Your task to perform on an android device: choose inbox layout in the gmail app Image 0: 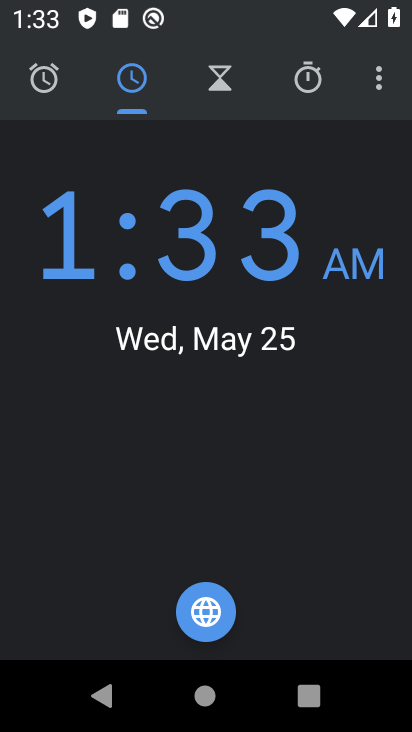
Step 0: press home button
Your task to perform on an android device: choose inbox layout in the gmail app Image 1: 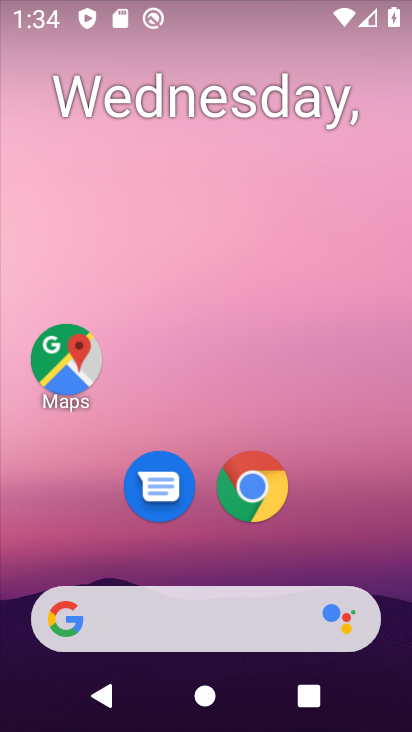
Step 1: click (75, 372)
Your task to perform on an android device: choose inbox layout in the gmail app Image 2: 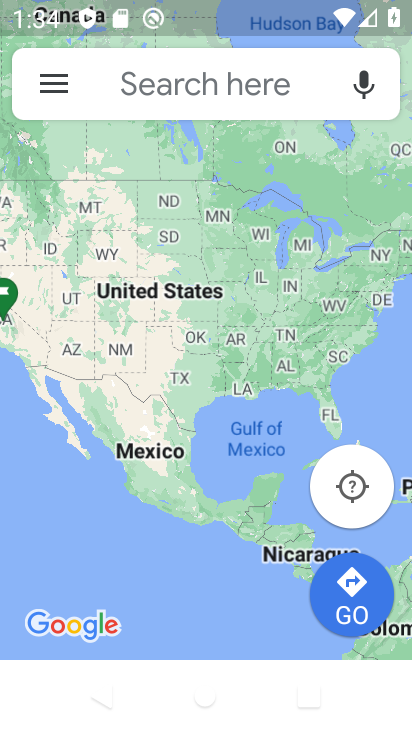
Step 2: press home button
Your task to perform on an android device: choose inbox layout in the gmail app Image 3: 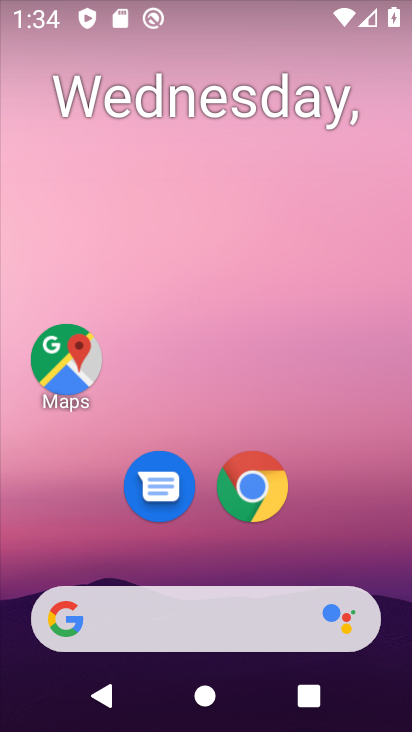
Step 3: drag from (206, 560) to (151, 112)
Your task to perform on an android device: choose inbox layout in the gmail app Image 4: 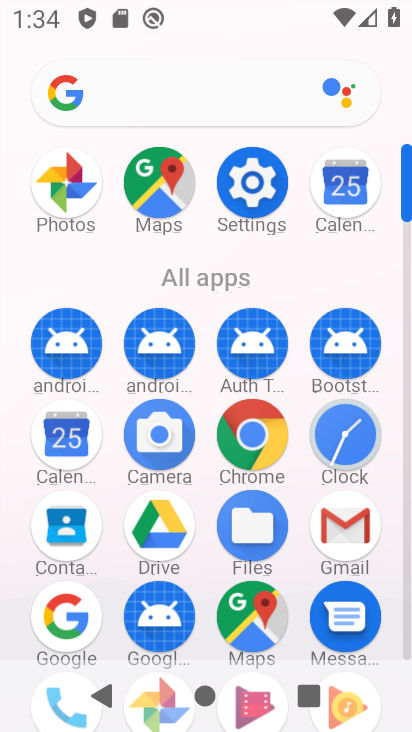
Step 4: click (345, 524)
Your task to perform on an android device: choose inbox layout in the gmail app Image 5: 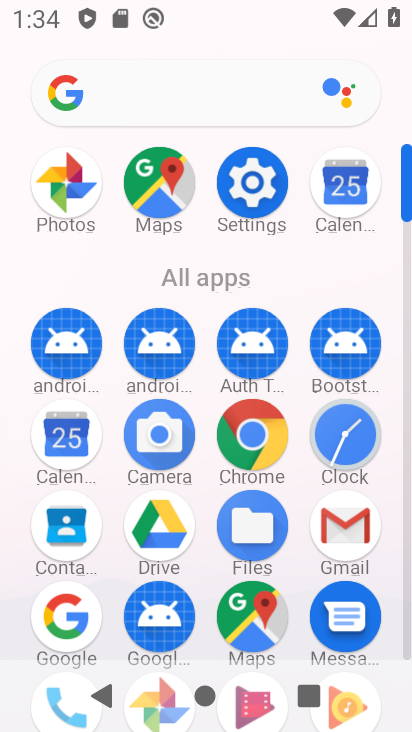
Step 5: click (345, 524)
Your task to perform on an android device: choose inbox layout in the gmail app Image 6: 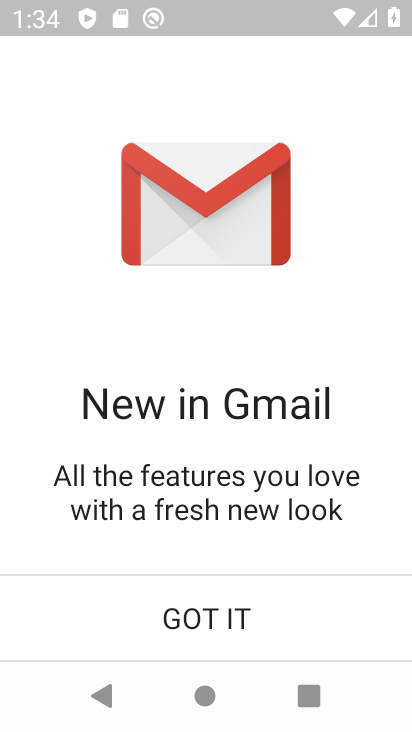
Step 6: click (229, 601)
Your task to perform on an android device: choose inbox layout in the gmail app Image 7: 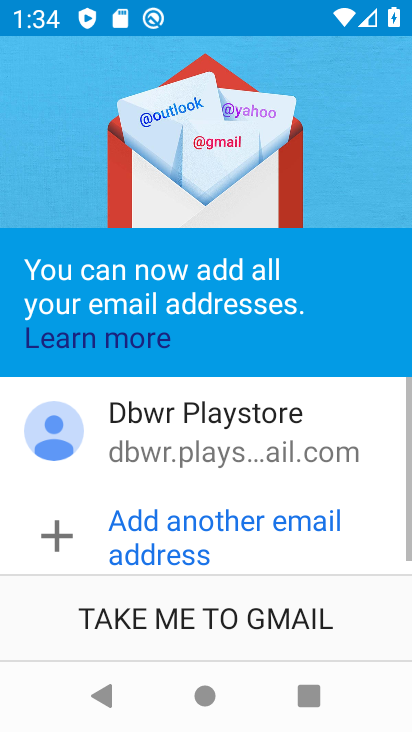
Step 7: click (229, 601)
Your task to perform on an android device: choose inbox layout in the gmail app Image 8: 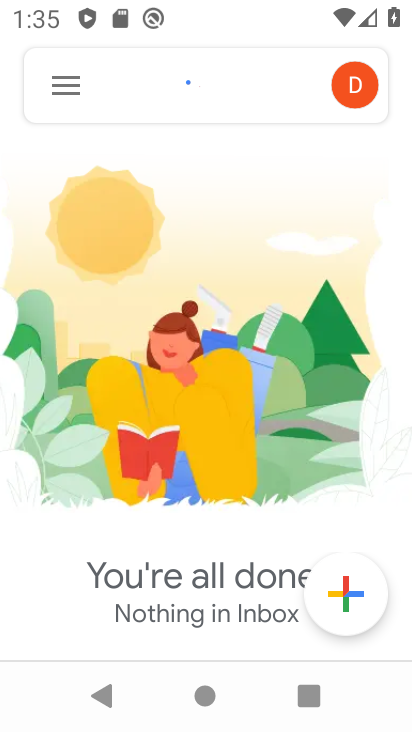
Step 8: click (72, 81)
Your task to perform on an android device: choose inbox layout in the gmail app Image 9: 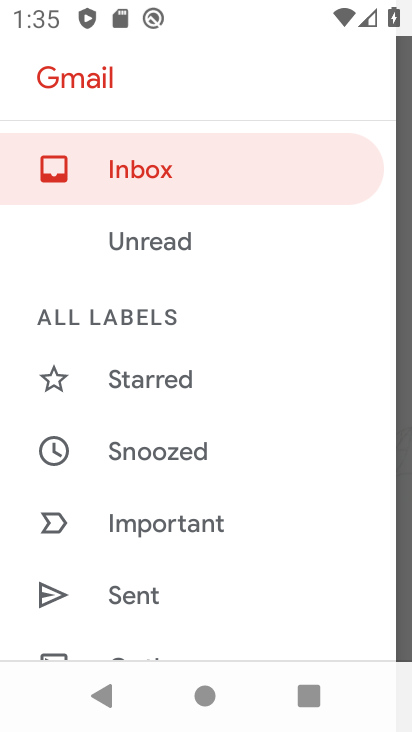
Step 9: drag from (273, 601) to (281, 230)
Your task to perform on an android device: choose inbox layout in the gmail app Image 10: 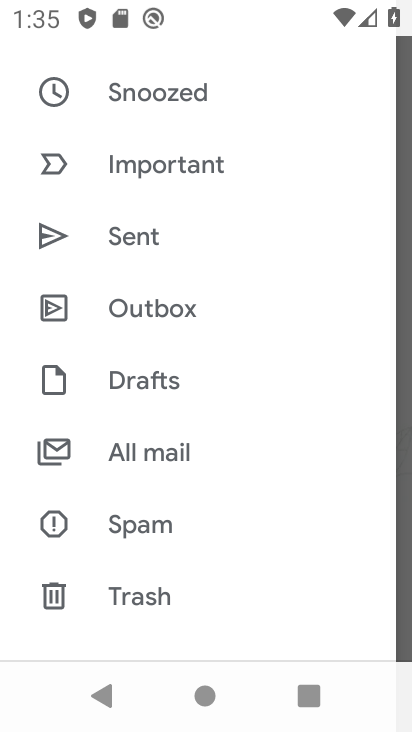
Step 10: drag from (226, 570) to (207, 248)
Your task to perform on an android device: choose inbox layout in the gmail app Image 11: 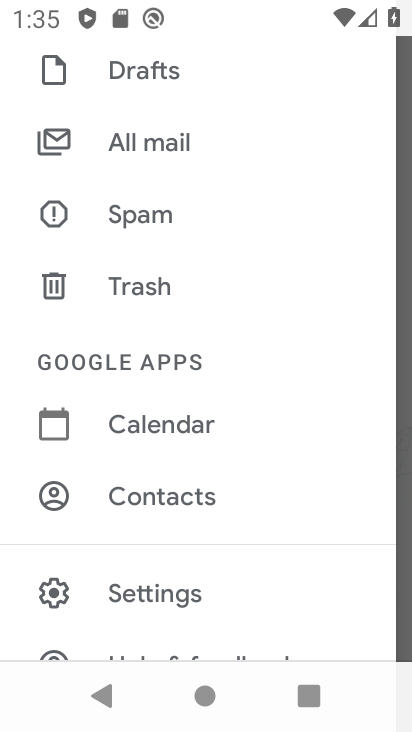
Step 11: click (188, 603)
Your task to perform on an android device: choose inbox layout in the gmail app Image 12: 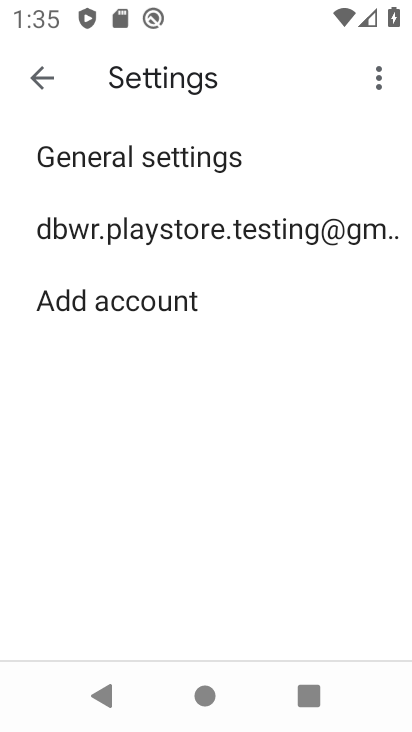
Step 12: click (153, 223)
Your task to perform on an android device: choose inbox layout in the gmail app Image 13: 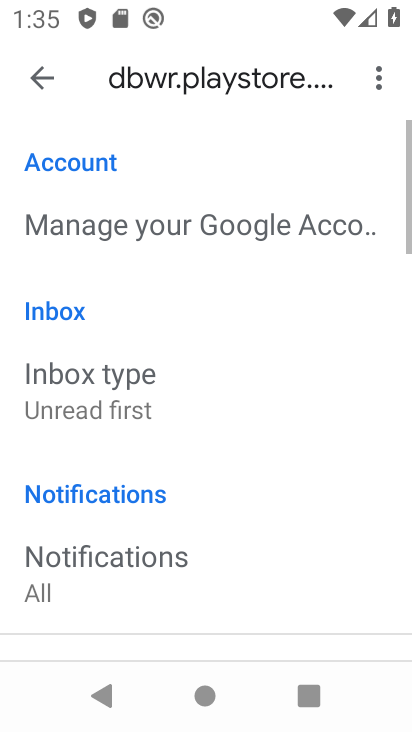
Step 13: click (103, 409)
Your task to perform on an android device: choose inbox layout in the gmail app Image 14: 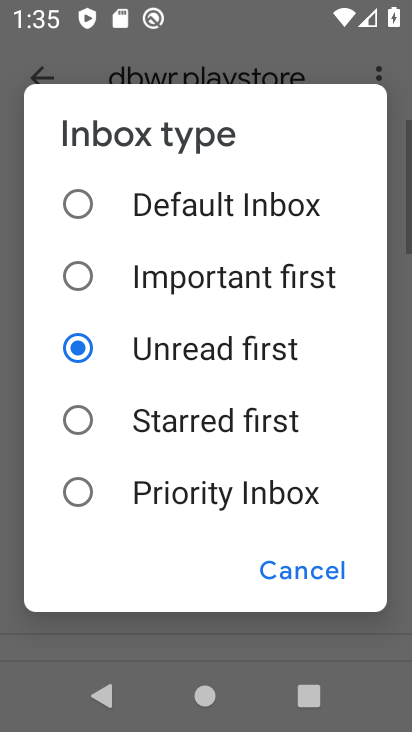
Step 14: click (213, 180)
Your task to perform on an android device: choose inbox layout in the gmail app Image 15: 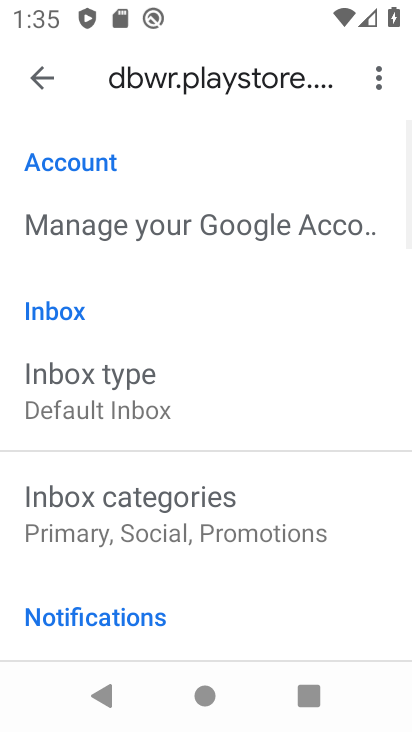
Step 15: task complete